Your task to perform on an android device: change the clock display to show seconds Image 0: 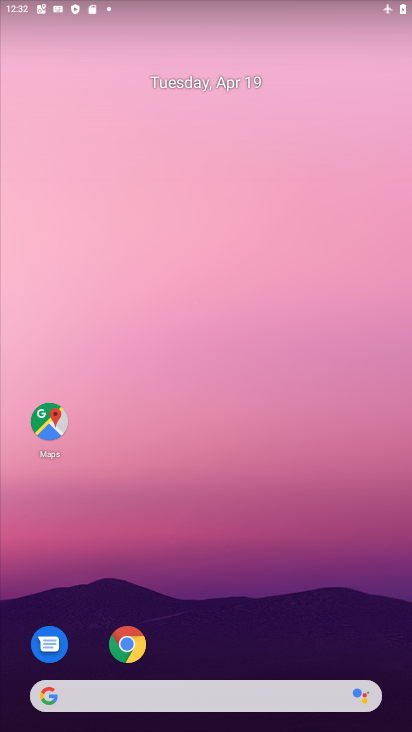
Step 0: task complete